Your task to perform on an android device: turn off location history Image 0: 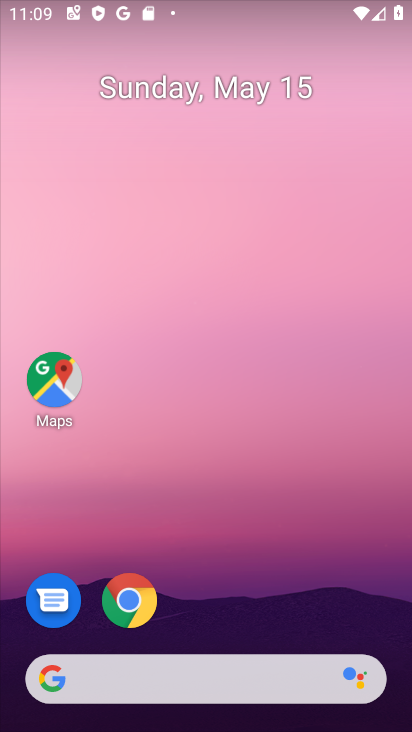
Step 0: drag from (179, 664) to (28, 68)
Your task to perform on an android device: turn off location history Image 1: 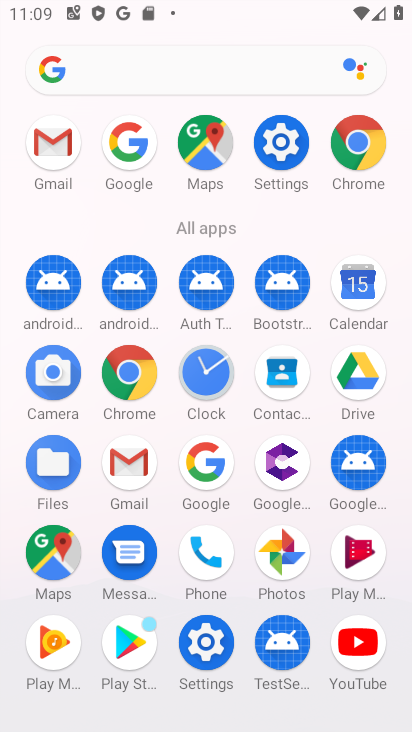
Step 1: click (277, 152)
Your task to perform on an android device: turn off location history Image 2: 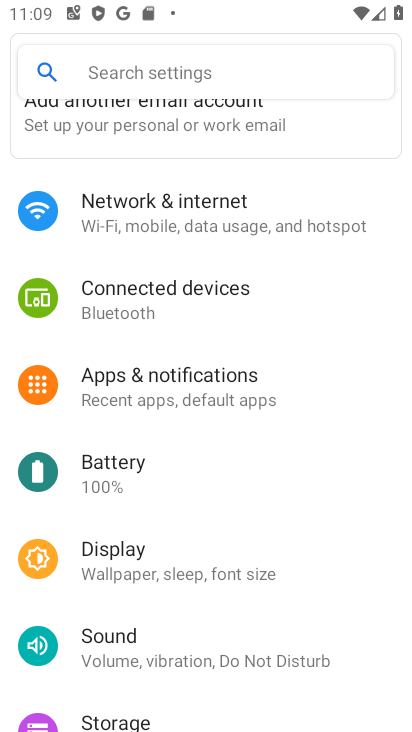
Step 2: drag from (182, 555) to (176, 129)
Your task to perform on an android device: turn off location history Image 3: 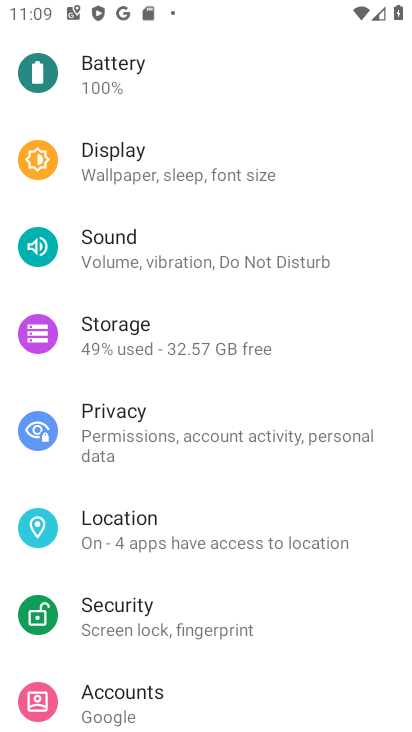
Step 3: click (161, 543)
Your task to perform on an android device: turn off location history Image 4: 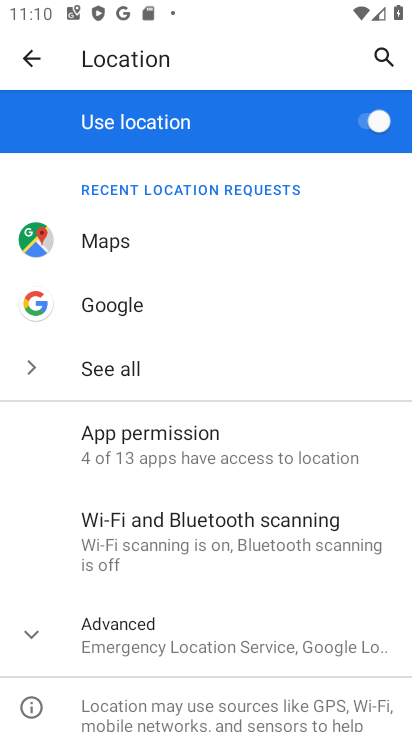
Step 4: click (165, 624)
Your task to perform on an android device: turn off location history Image 5: 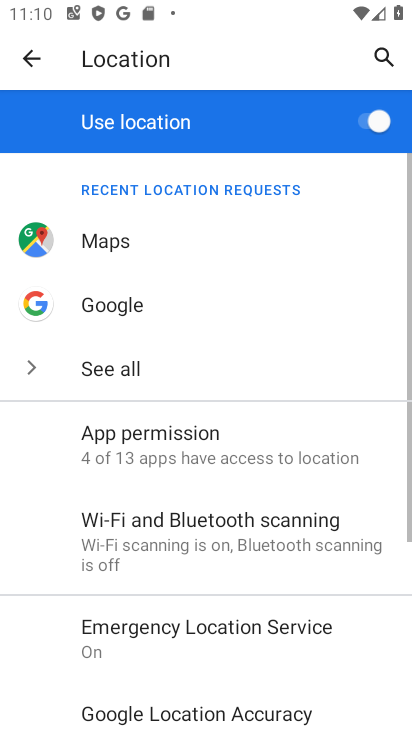
Step 5: drag from (165, 624) to (171, 165)
Your task to perform on an android device: turn off location history Image 6: 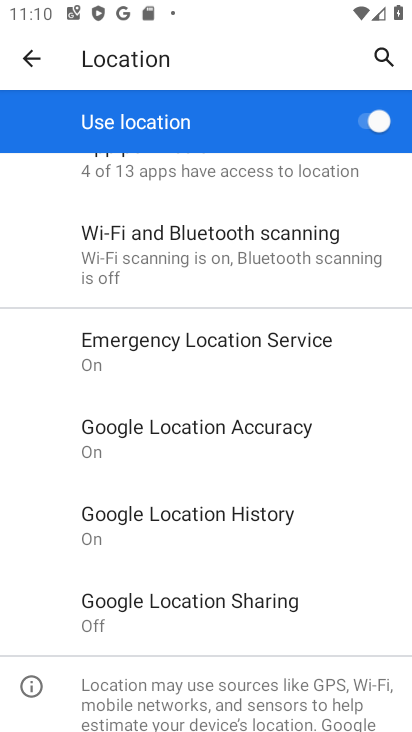
Step 6: click (159, 518)
Your task to perform on an android device: turn off location history Image 7: 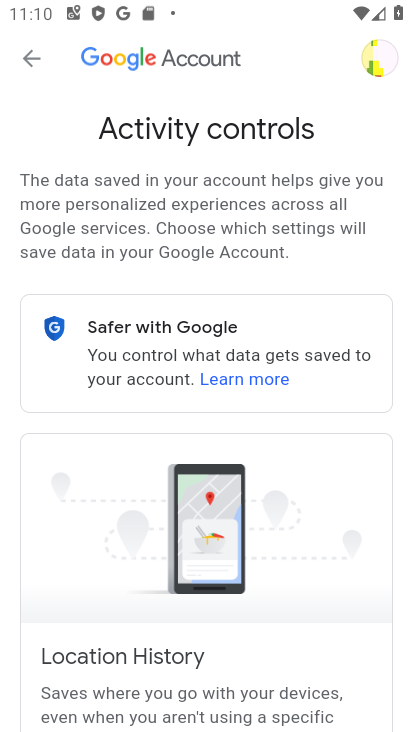
Step 7: drag from (330, 571) to (246, 57)
Your task to perform on an android device: turn off location history Image 8: 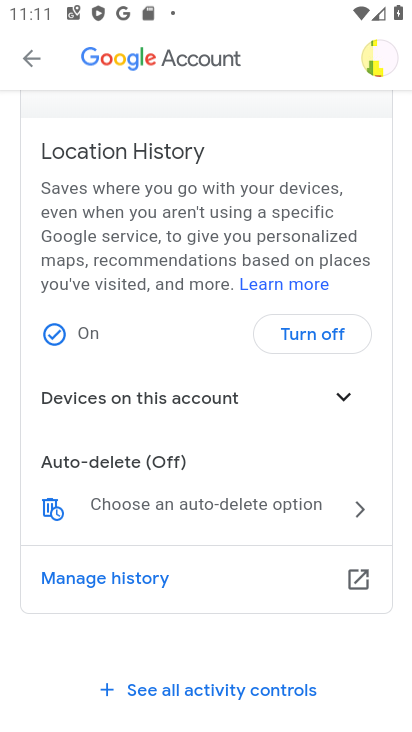
Step 8: click (277, 344)
Your task to perform on an android device: turn off location history Image 9: 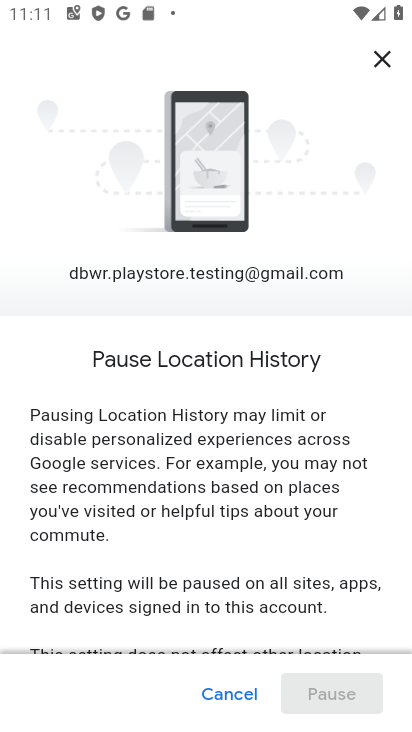
Step 9: drag from (323, 626) to (62, 144)
Your task to perform on an android device: turn off location history Image 10: 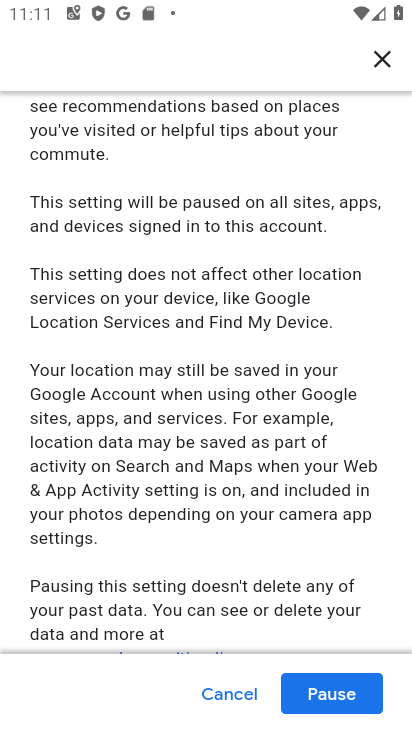
Step 10: click (335, 691)
Your task to perform on an android device: turn off location history Image 11: 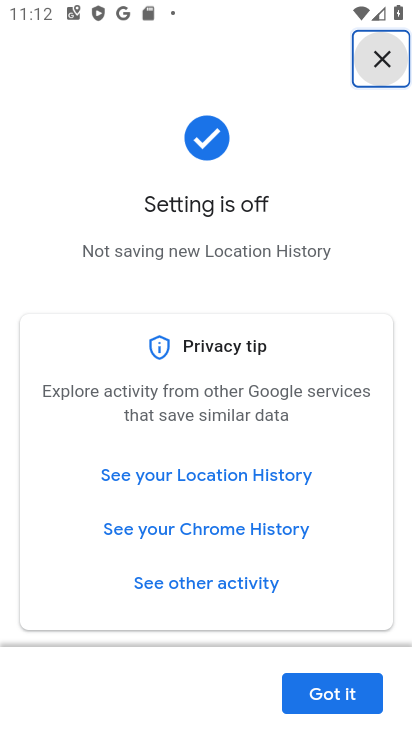
Step 11: click (328, 705)
Your task to perform on an android device: turn off location history Image 12: 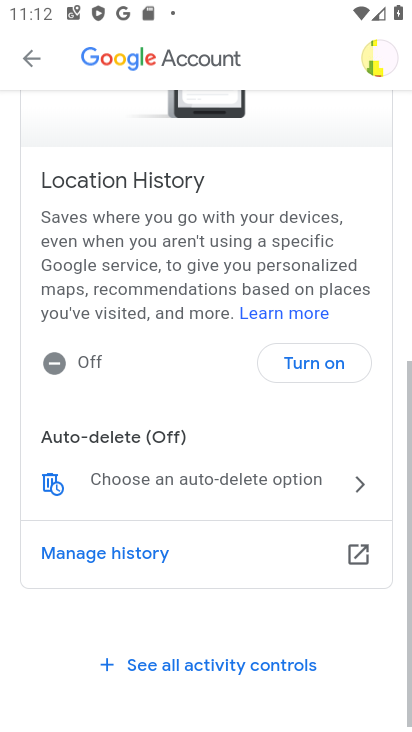
Step 12: task complete